Your task to perform on an android device: turn off sleep mode Image 0: 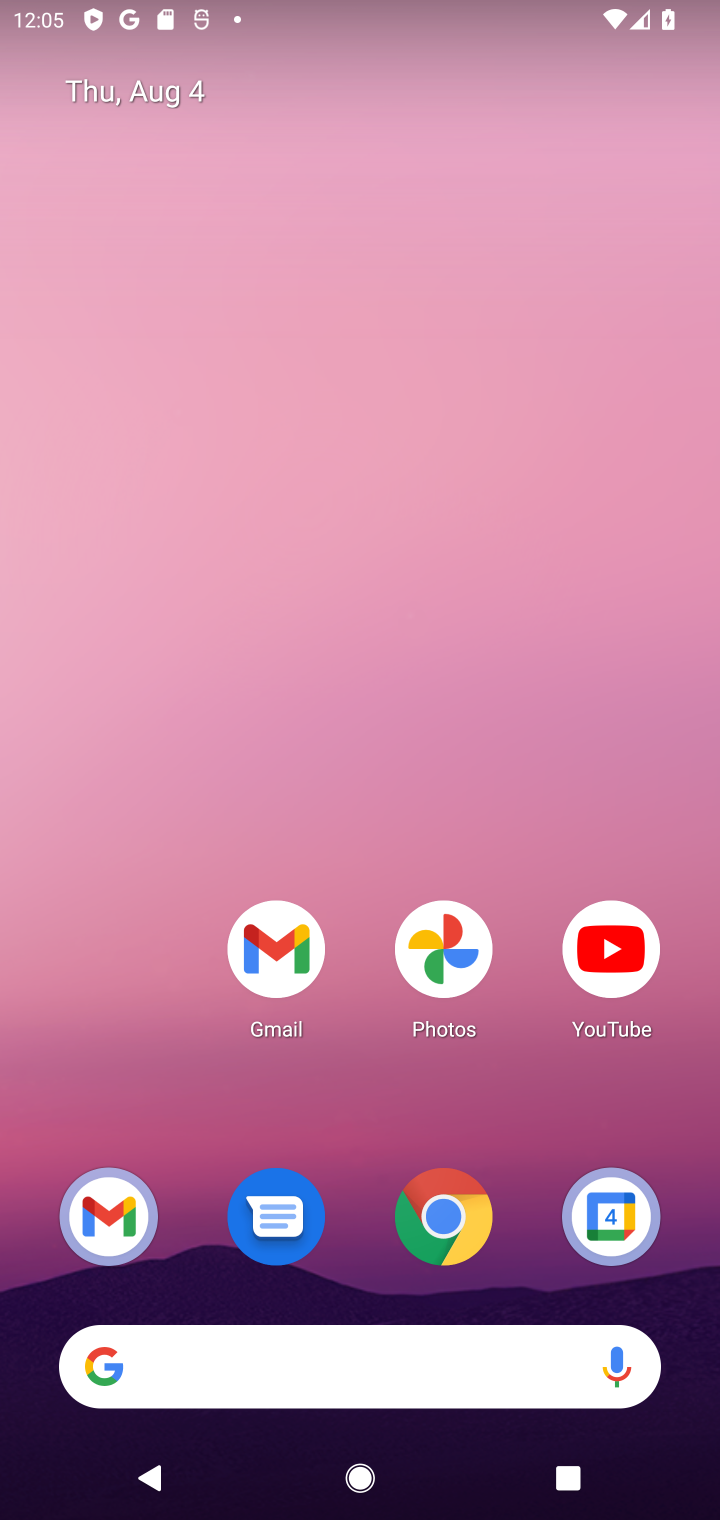
Step 0: drag from (503, 678) to (472, 362)
Your task to perform on an android device: turn off sleep mode Image 1: 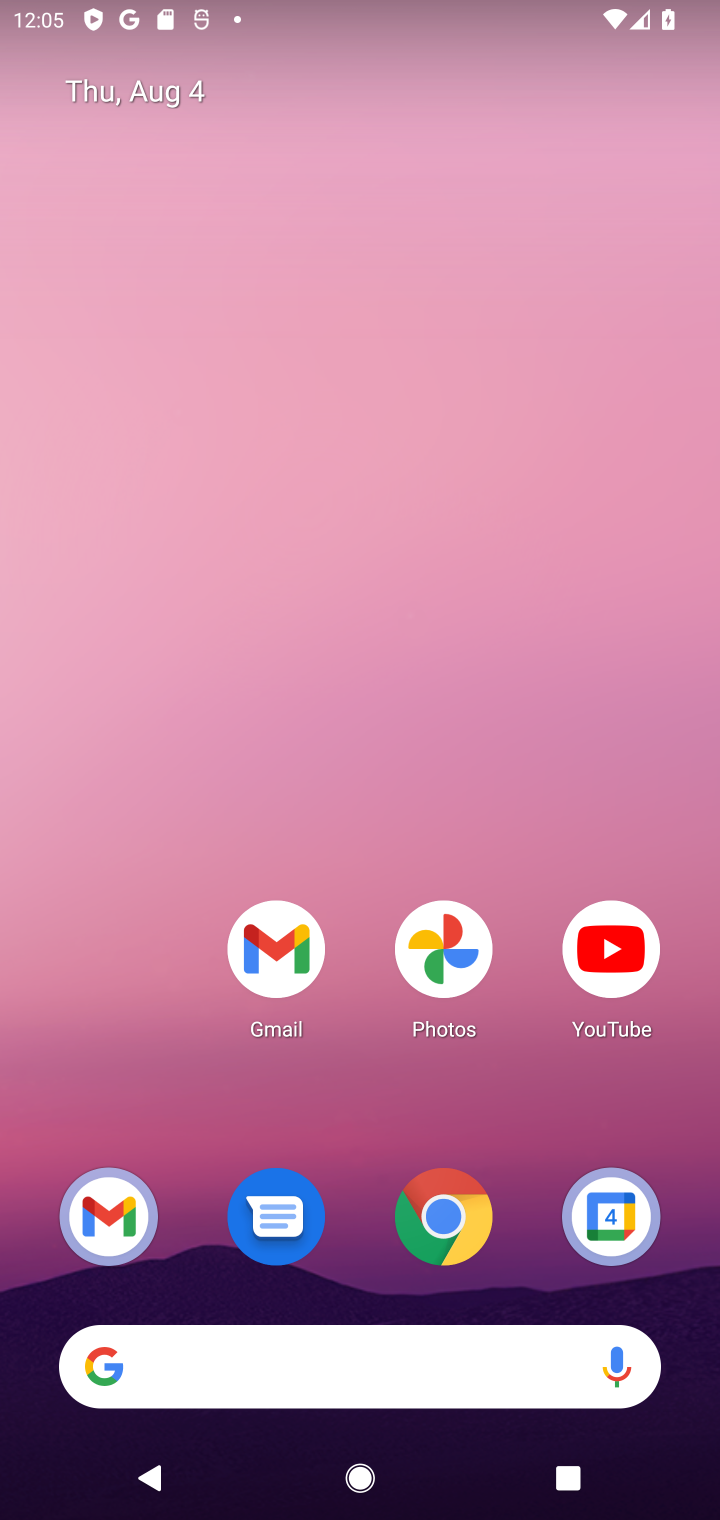
Step 1: task complete